Your task to perform on an android device: Open notification settings Image 0: 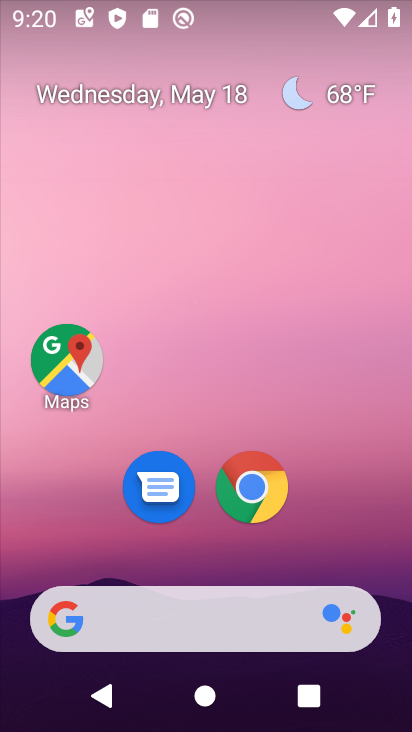
Step 0: drag from (361, 514) to (338, 238)
Your task to perform on an android device: Open notification settings Image 1: 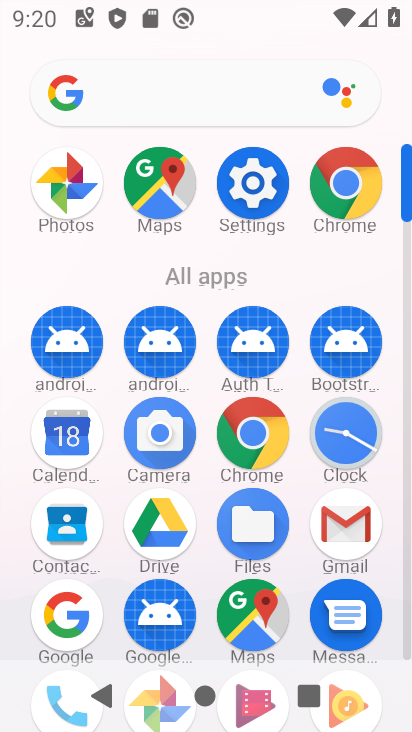
Step 1: click (257, 188)
Your task to perform on an android device: Open notification settings Image 2: 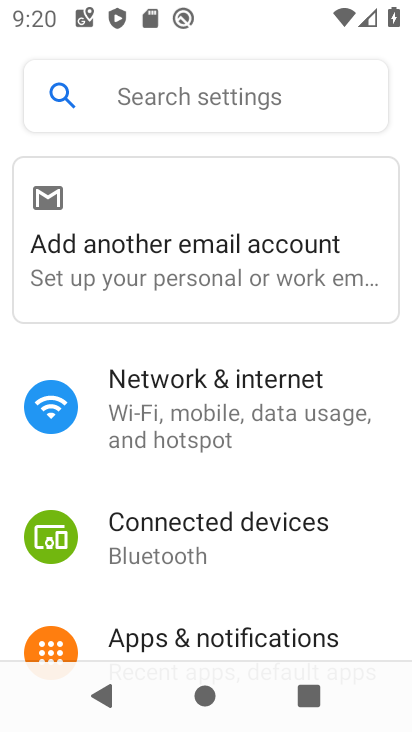
Step 2: click (272, 633)
Your task to perform on an android device: Open notification settings Image 3: 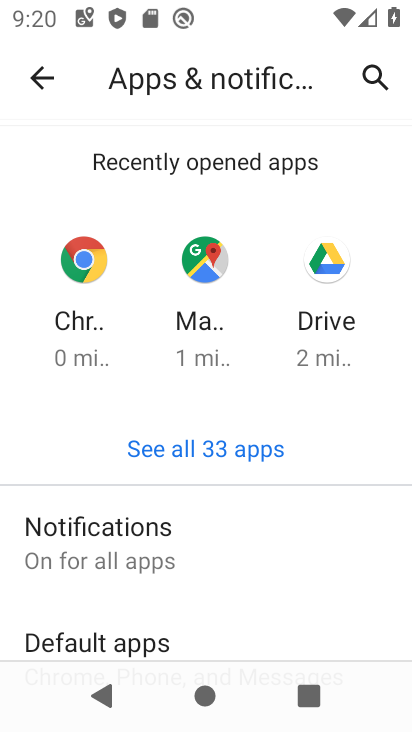
Step 3: click (186, 535)
Your task to perform on an android device: Open notification settings Image 4: 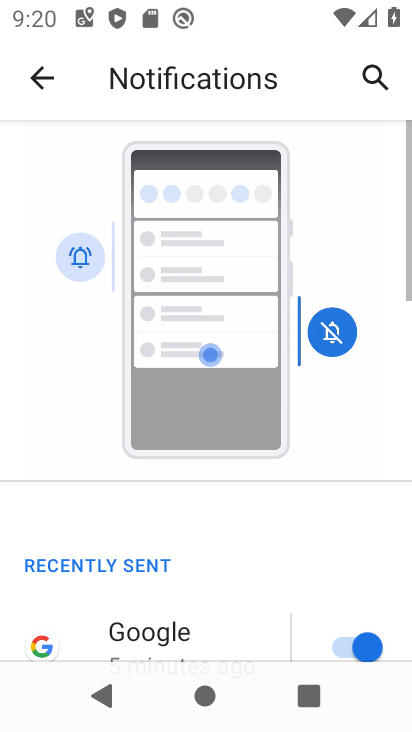
Step 4: drag from (230, 564) to (324, 213)
Your task to perform on an android device: Open notification settings Image 5: 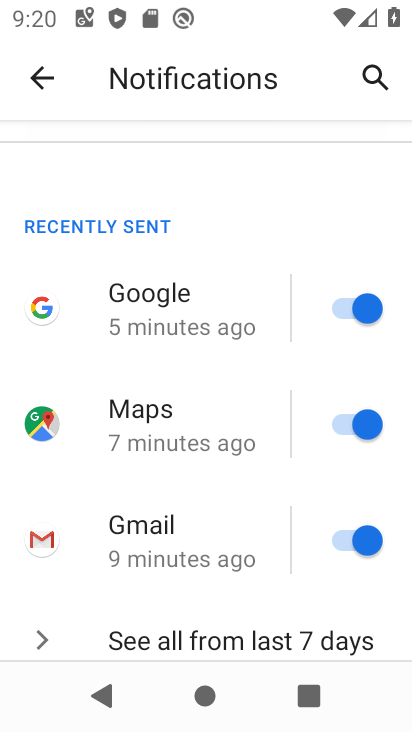
Step 5: drag from (252, 600) to (269, 329)
Your task to perform on an android device: Open notification settings Image 6: 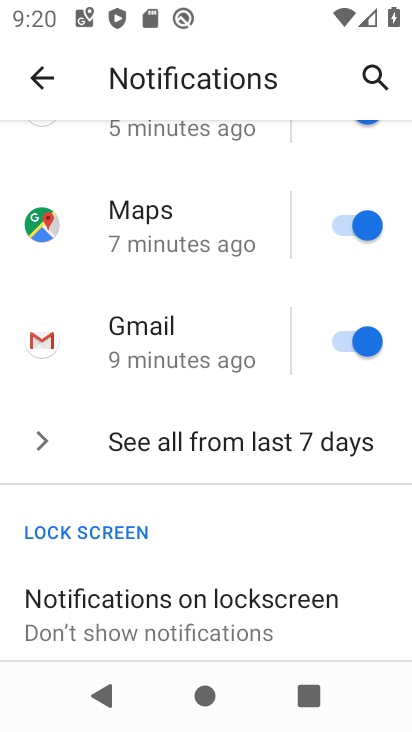
Step 6: drag from (302, 574) to (219, 307)
Your task to perform on an android device: Open notification settings Image 7: 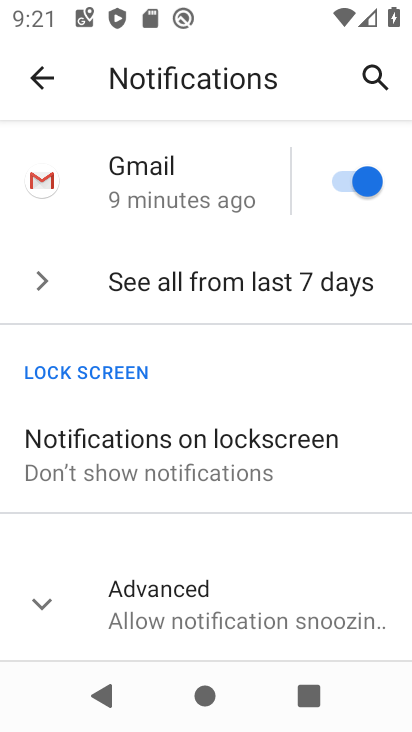
Step 7: click (28, 612)
Your task to perform on an android device: Open notification settings Image 8: 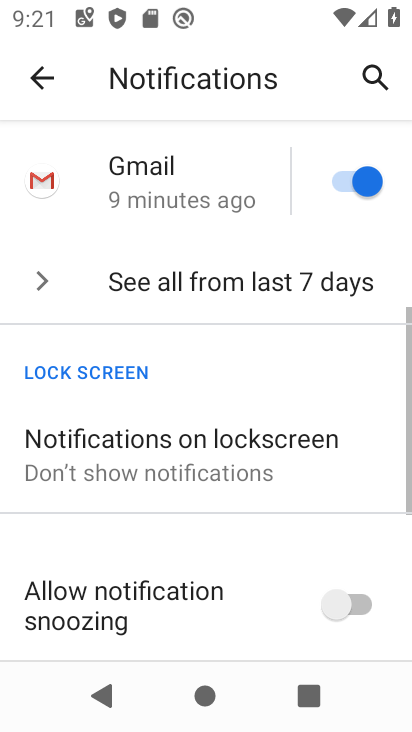
Step 8: task complete